Your task to perform on an android device: Open settings on Google Maps Image 0: 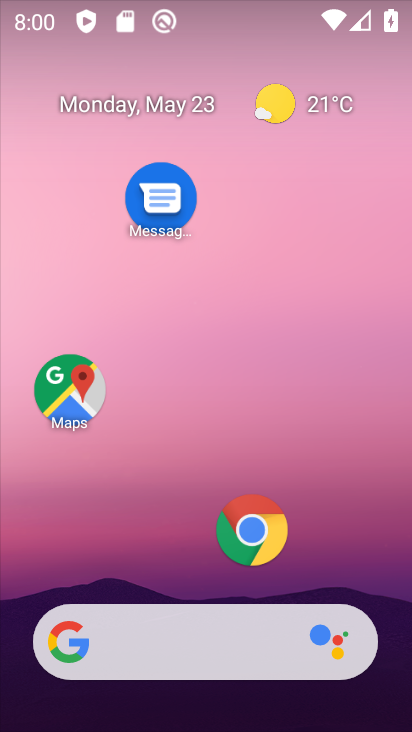
Step 0: click (54, 409)
Your task to perform on an android device: Open settings on Google Maps Image 1: 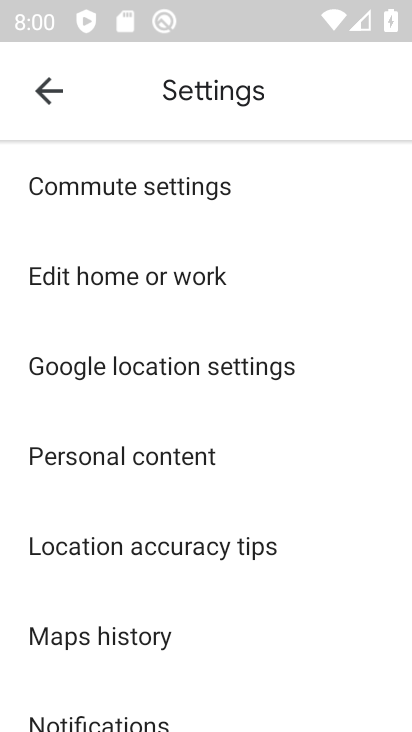
Step 1: task complete